Your task to perform on an android device: turn on airplane mode Image 0: 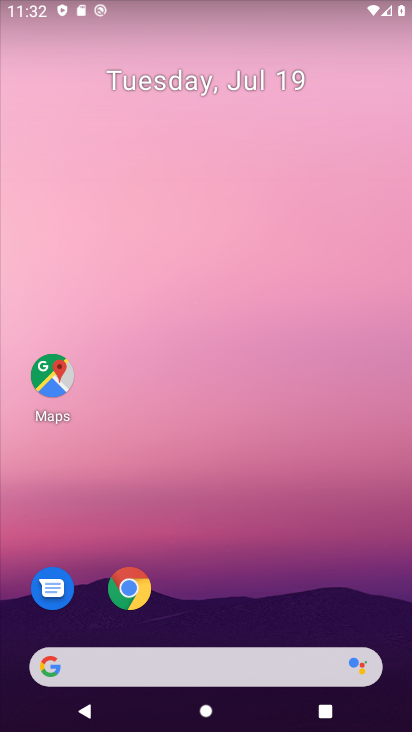
Step 0: drag from (383, 614) to (175, 53)
Your task to perform on an android device: turn on airplane mode Image 1: 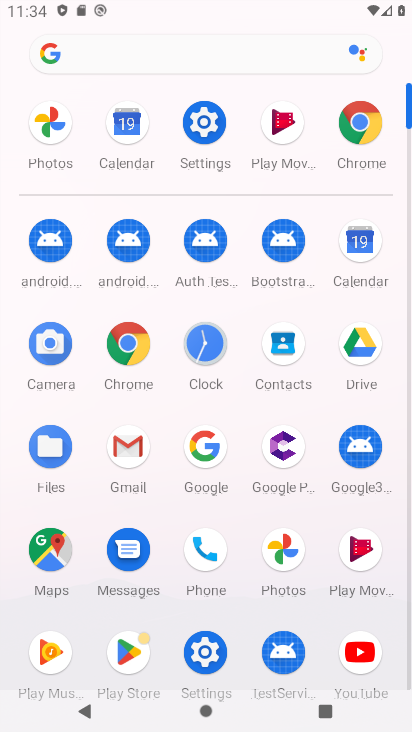
Step 1: drag from (252, 5) to (207, 728)
Your task to perform on an android device: turn on airplane mode Image 2: 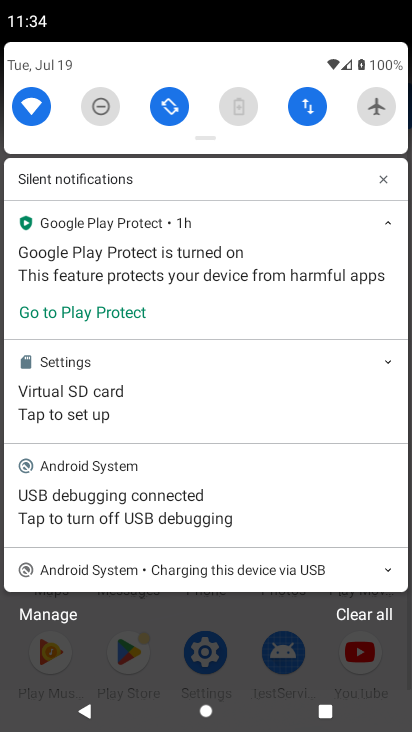
Step 2: click (376, 95)
Your task to perform on an android device: turn on airplane mode Image 3: 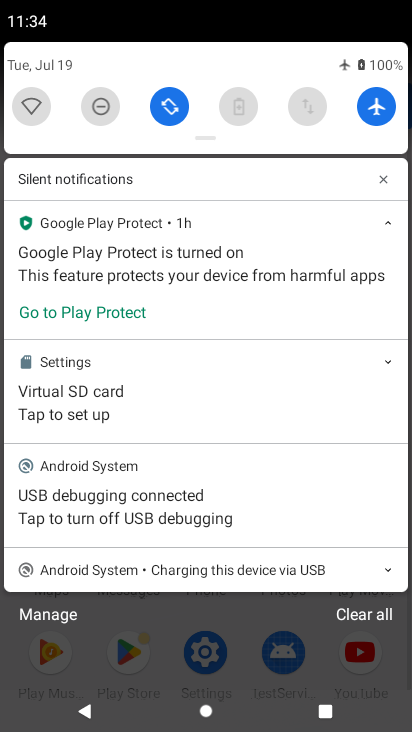
Step 3: task complete